Your task to perform on an android device: Search for logitech g903 on bestbuy, select the first entry, add it to the cart, then select checkout. Image 0: 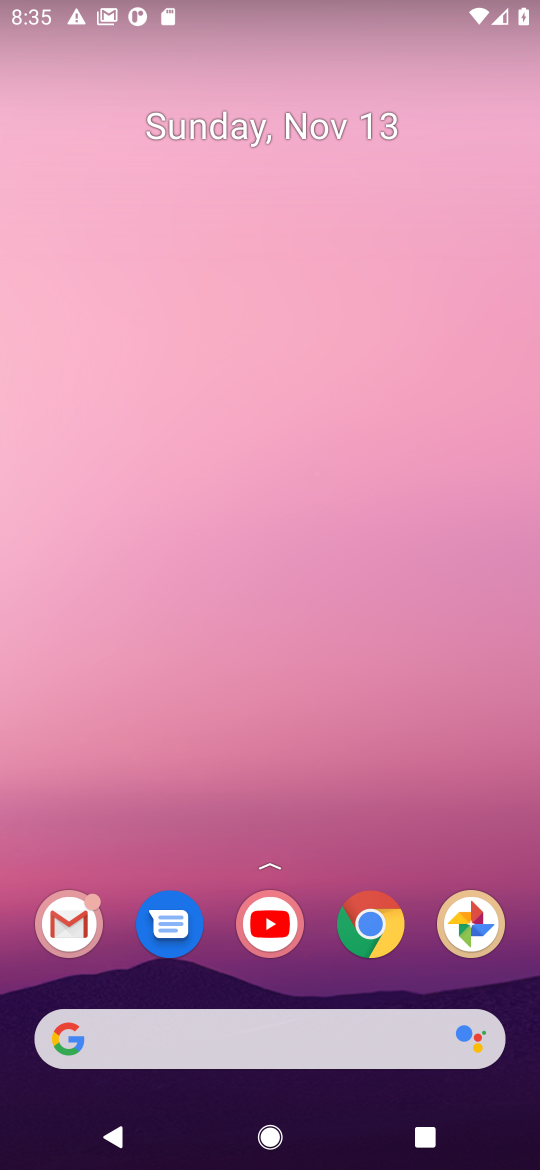
Step 0: click (381, 925)
Your task to perform on an android device: Search for logitech g903 on bestbuy, select the first entry, add it to the cart, then select checkout. Image 1: 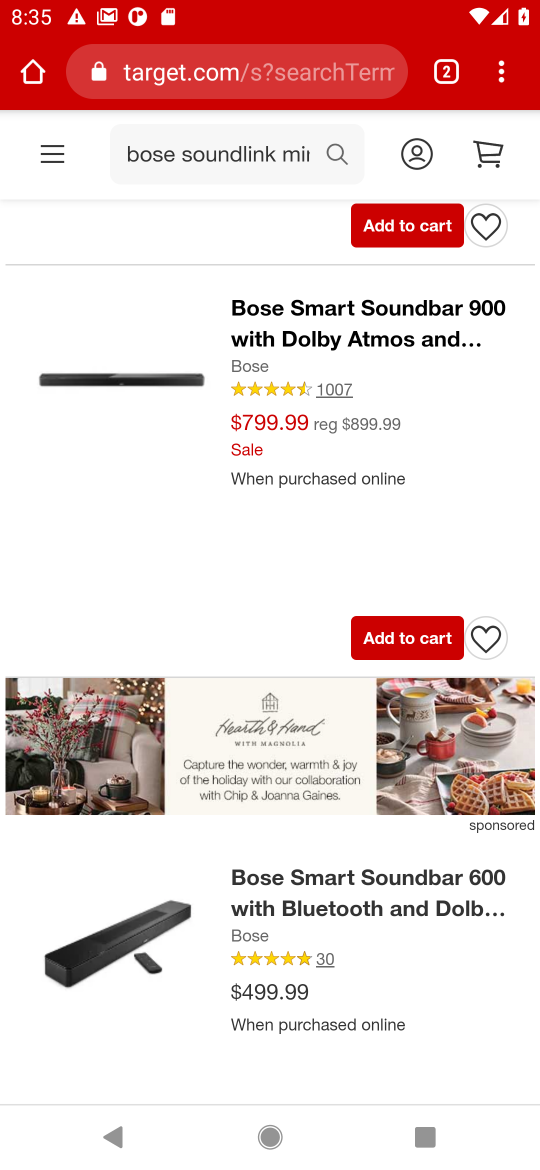
Step 1: click (219, 80)
Your task to perform on an android device: Search for logitech g903 on bestbuy, select the first entry, add it to the cart, then select checkout. Image 2: 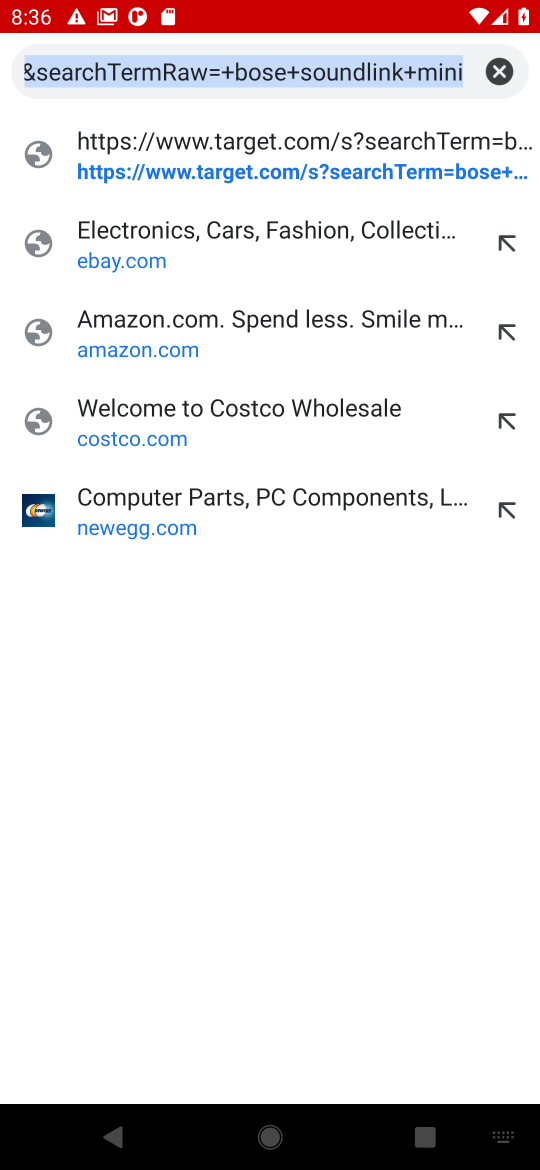
Step 2: type "bestbuy.com"
Your task to perform on an android device: Search for logitech g903 on bestbuy, select the first entry, add it to the cart, then select checkout. Image 3: 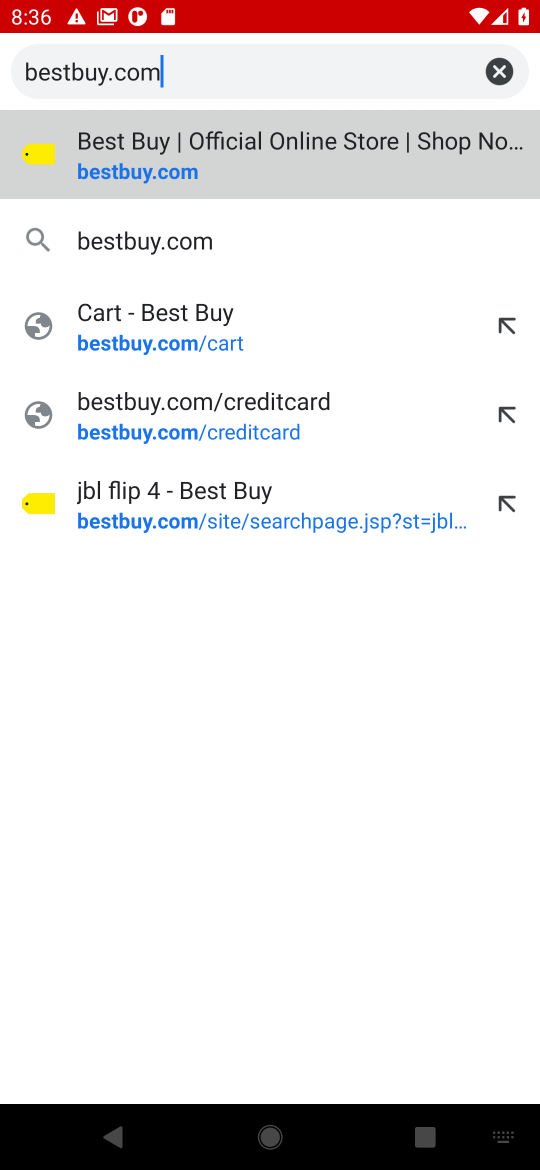
Step 3: click (98, 172)
Your task to perform on an android device: Search for logitech g903 on bestbuy, select the first entry, add it to the cart, then select checkout. Image 4: 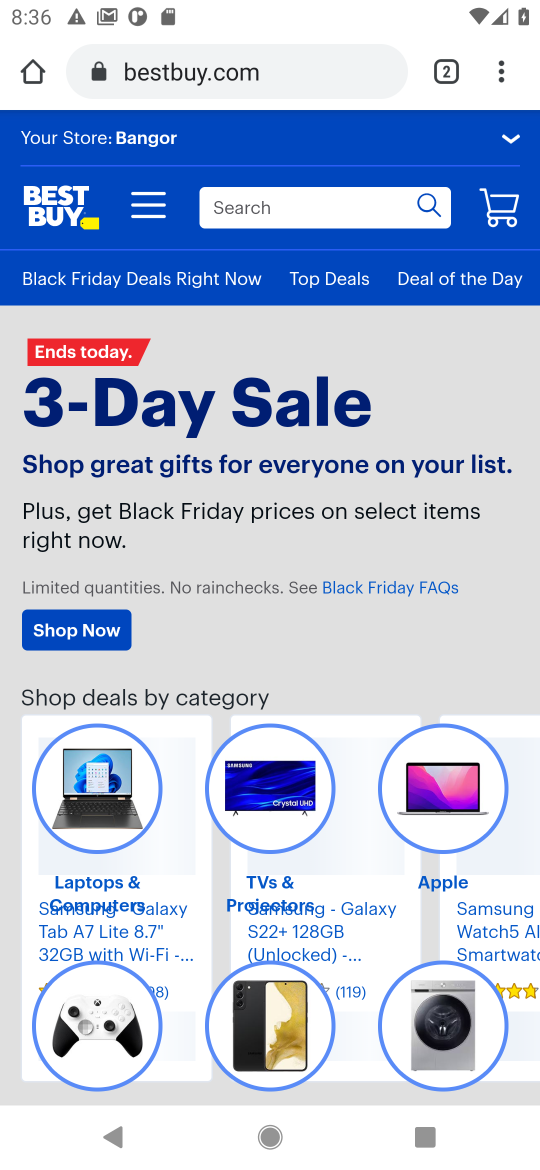
Step 4: click (331, 216)
Your task to perform on an android device: Search for logitech g903 on bestbuy, select the first entry, add it to the cart, then select checkout. Image 5: 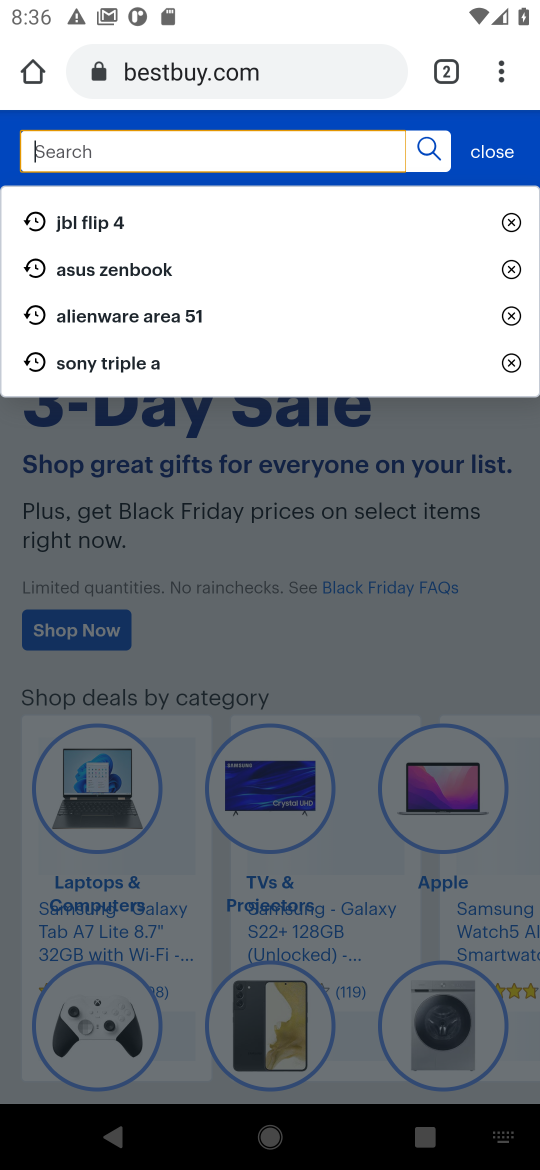
Step 5: type " logitech g903 "
Your task to perform on an android device: Search for logitech g903 on bestbuy, select the first entry, add it to the cart, then select checkout. Image 6: 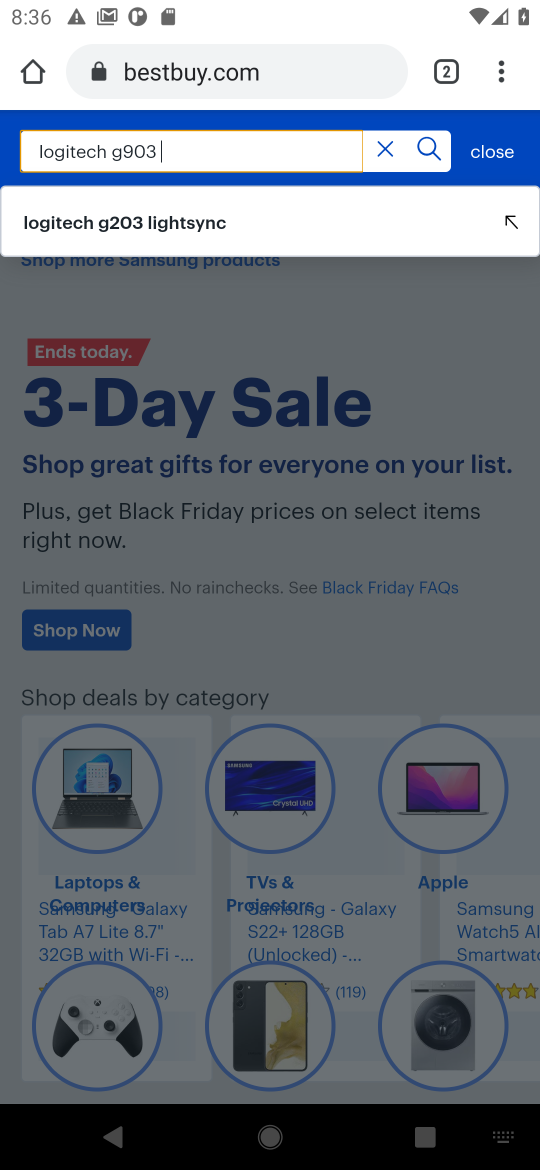
Step 6: click (416, 144)
Your task to perform on an android device: Search for logitech g903 on bestbuy, select the first entry, add it to the cart, then select checkout. Image 7: 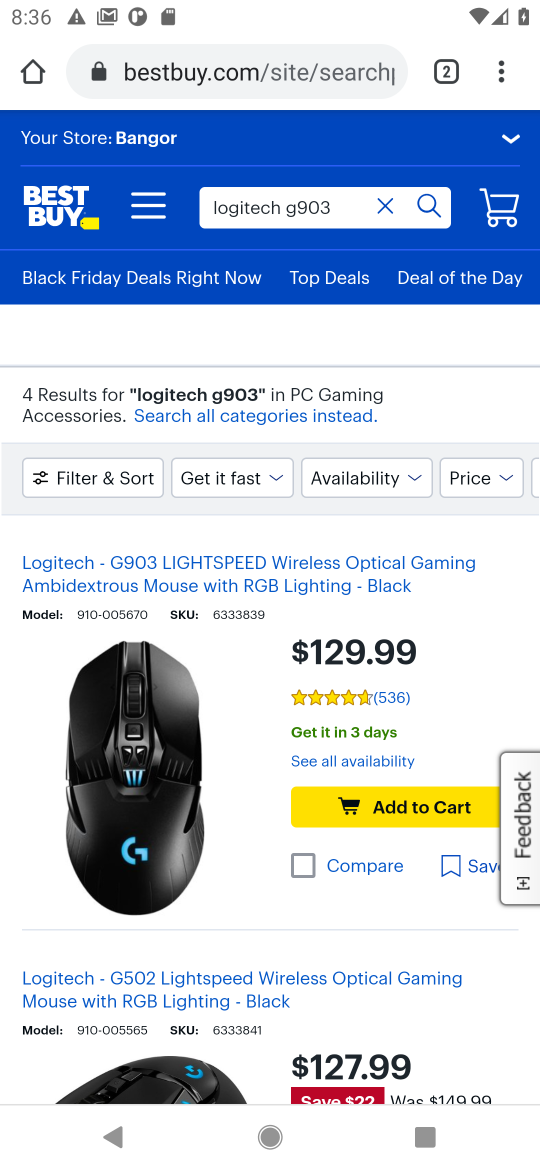
Step 7: click (358, 793)
Your task to perform on an android device: Search for logitech g903 on bestbuy, select the first entry, add it to the cart, then select checkout. Image 8: 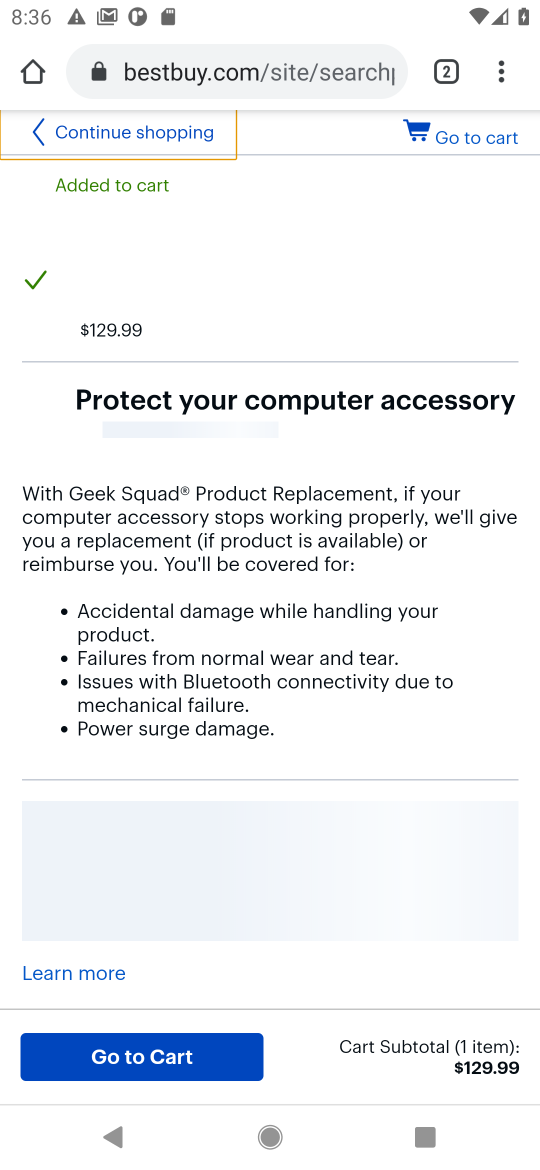
Step 8: click (480, 140)
Your task to perform on an android device: Search for logitech g903 on bestbuy, select the first entry, add it to the cart, then select checkout. Image 9: 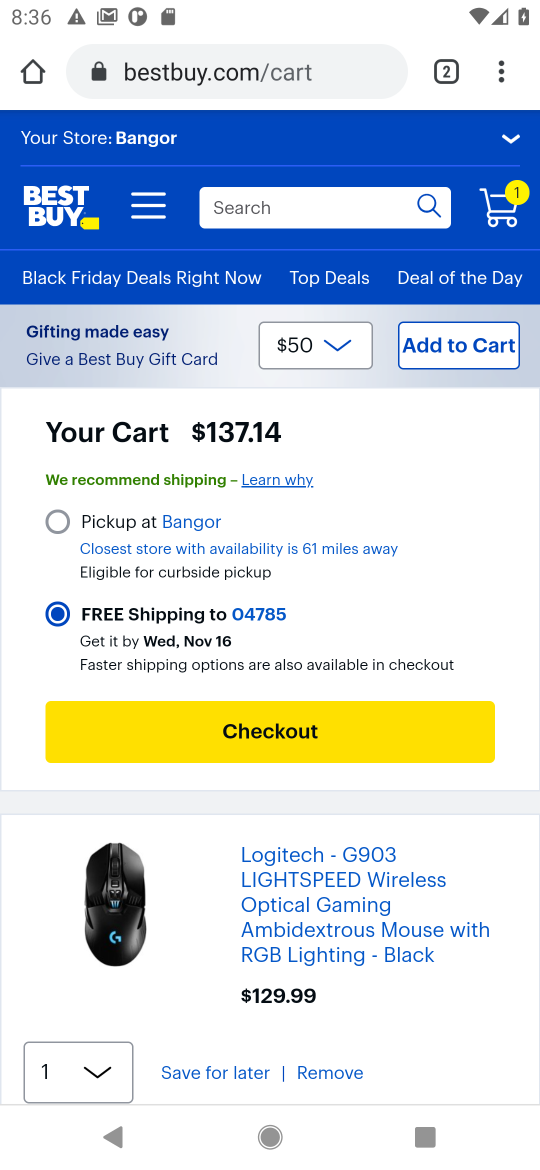
Step 9: click (276, 723)
Your task to perform on an android device: Search for logitech g903 on bestbuy, select the first entry, add it to the cart, then select checkout. Image 10: 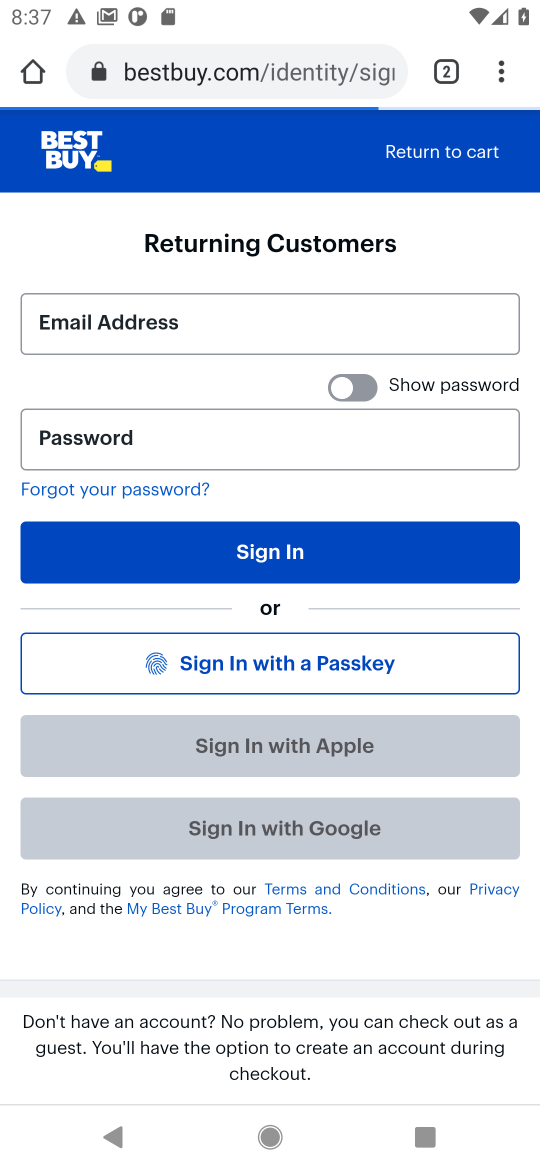
Step 10: task complete